Your task to perform on an android device: Search for pizza restaurants on Maps Image 0: 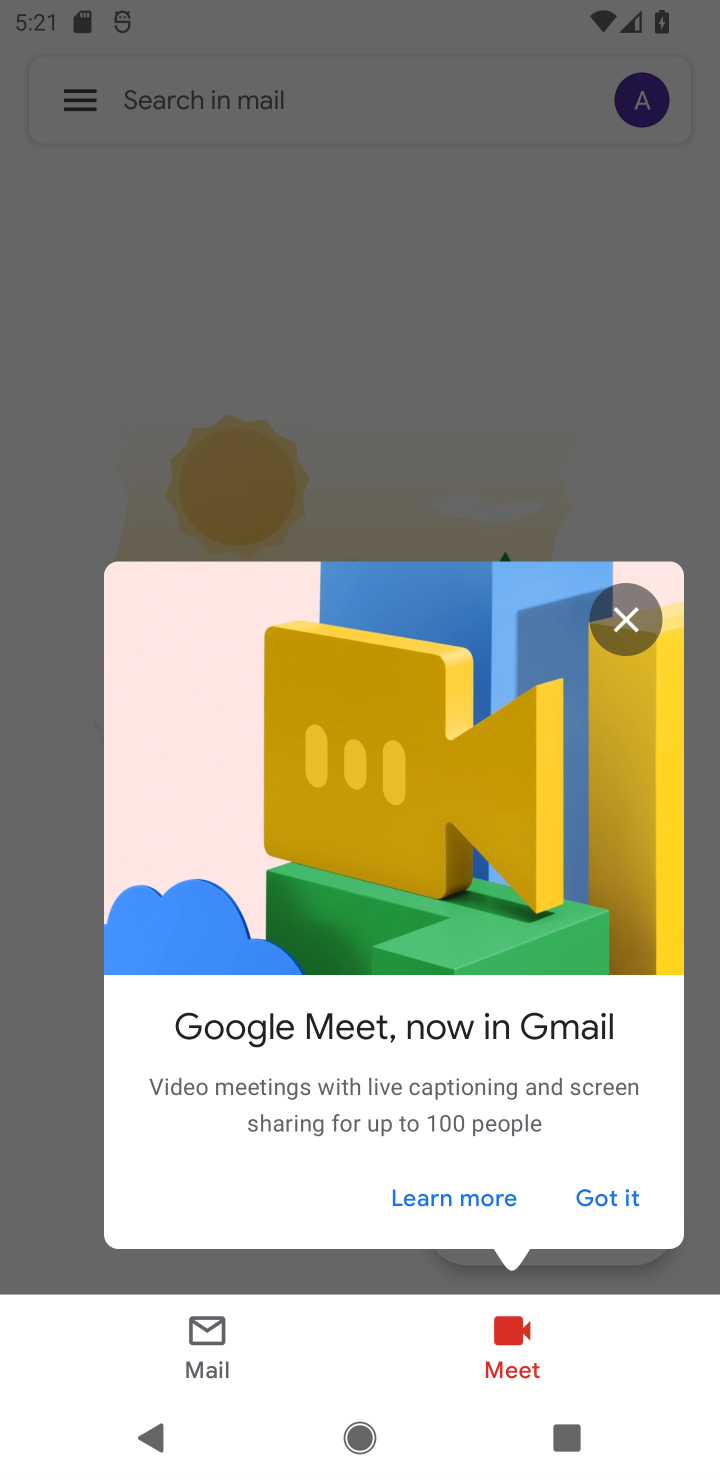
Step 0: press home button
Your task to perform on an android device: Search for pizza restaurants on Maps Image 1: 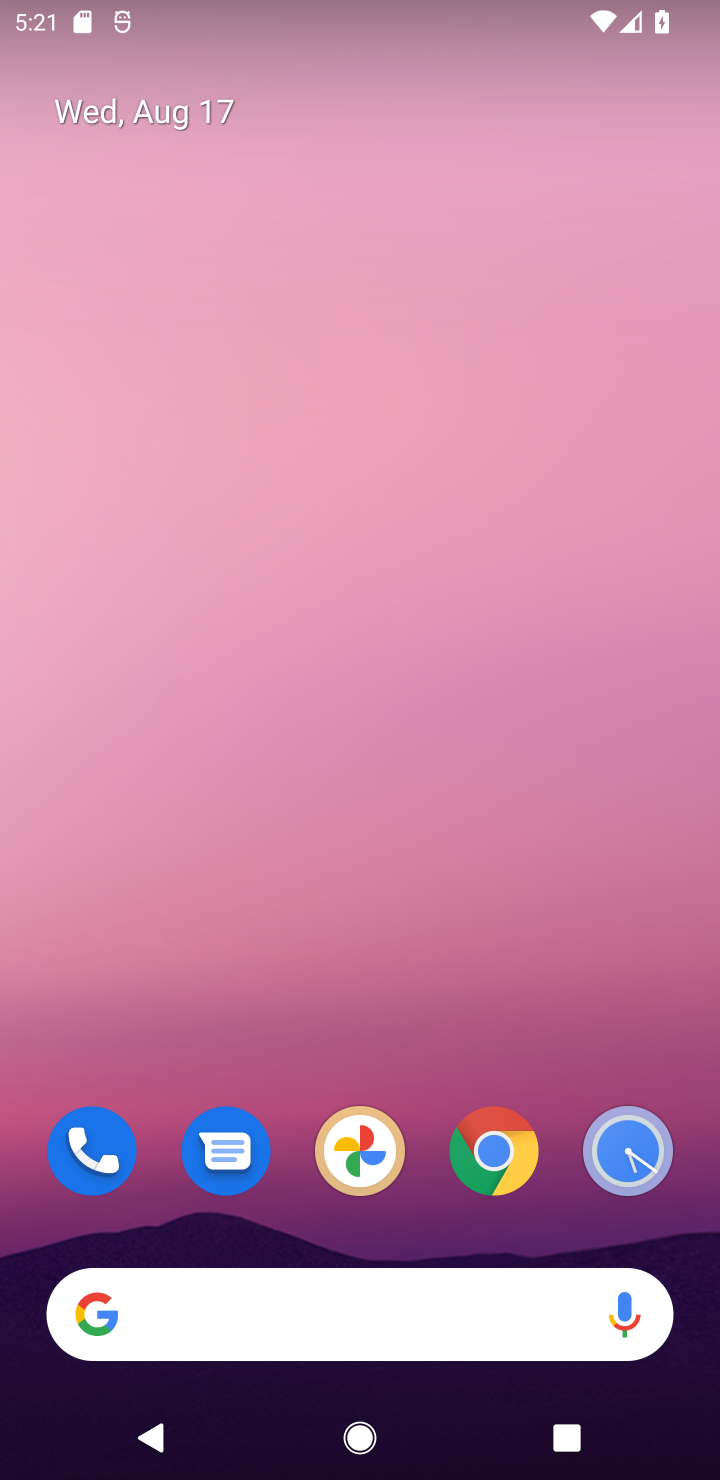
Step 1: drag from (397, 1255) to (459, 313)
Your task to perform on an android device: Search for pizza restaurants on Maps Image 2: 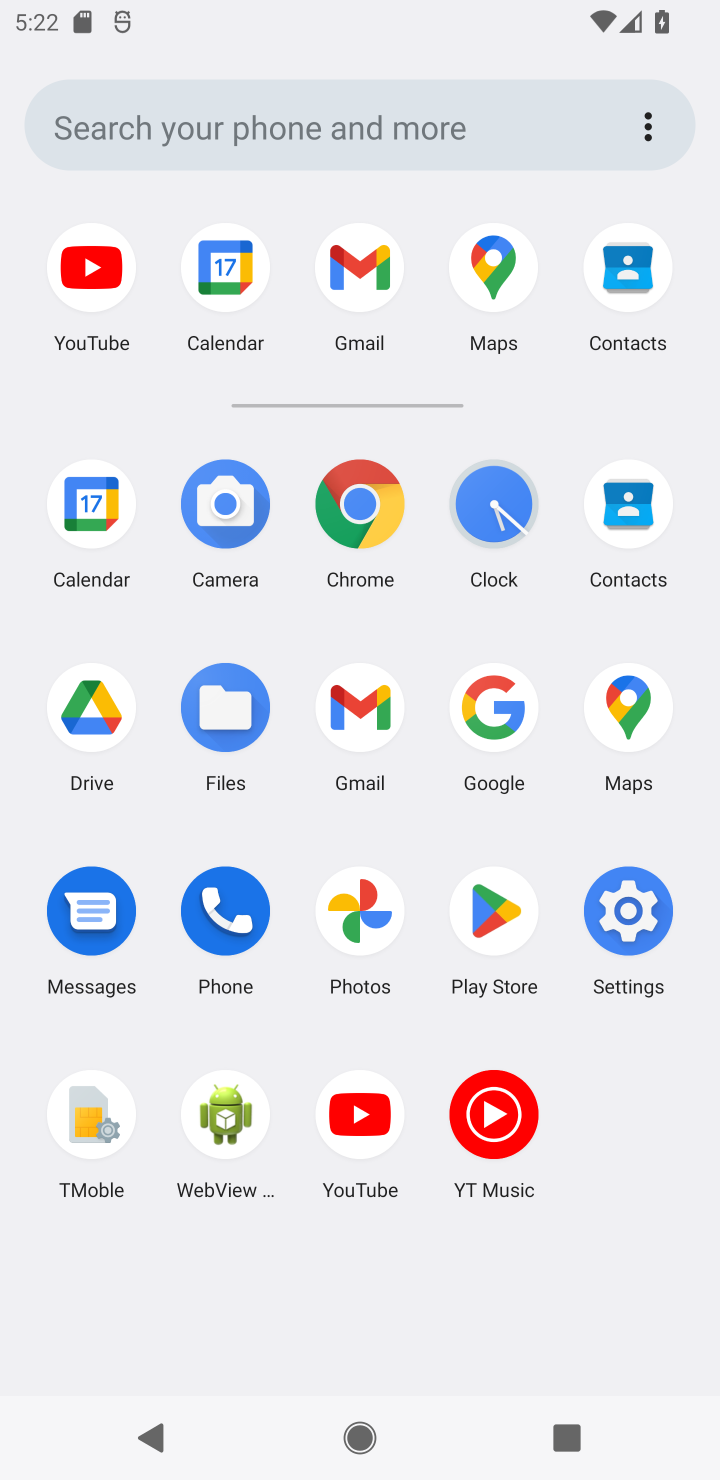
Step 2: click (491, 314)
Your task to perform on an android device: Search for pizza restaurants on Maps Image 3: 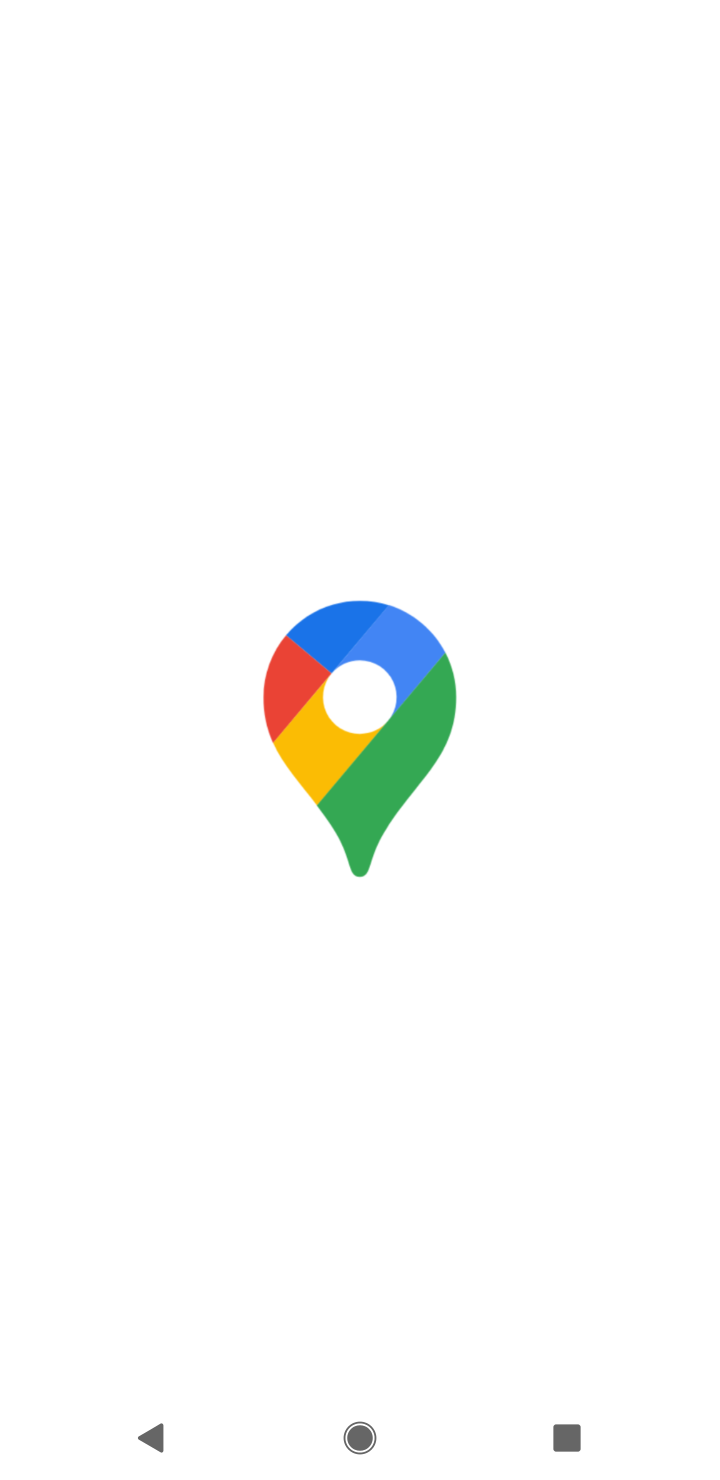
Step 3: task complete